Your task to perform on an android device: Go to Yahoo.com Image 0: 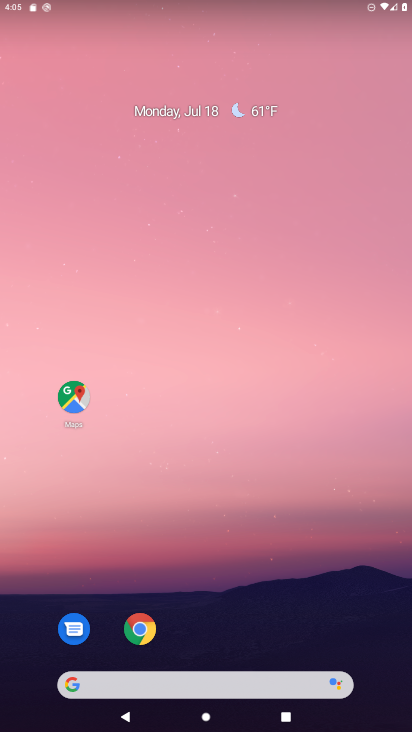
Step 0: click (136, 634)
Your task to perform on an android device: Go to Yahoo.com Image 1: 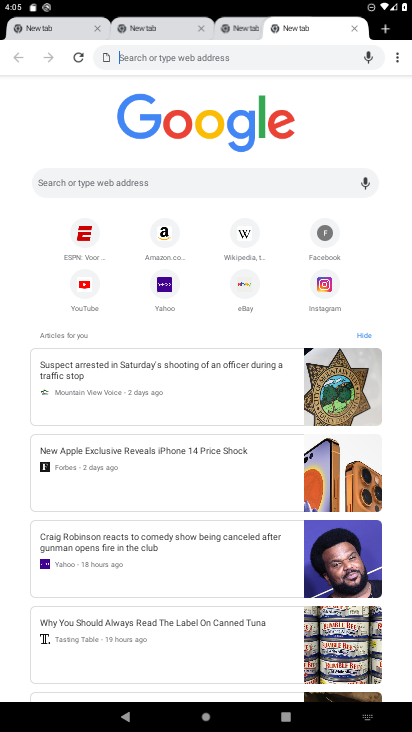
Step 1: click (171, 283)
Your task to perform on an android device: Go to Yahoo.com Image 2: 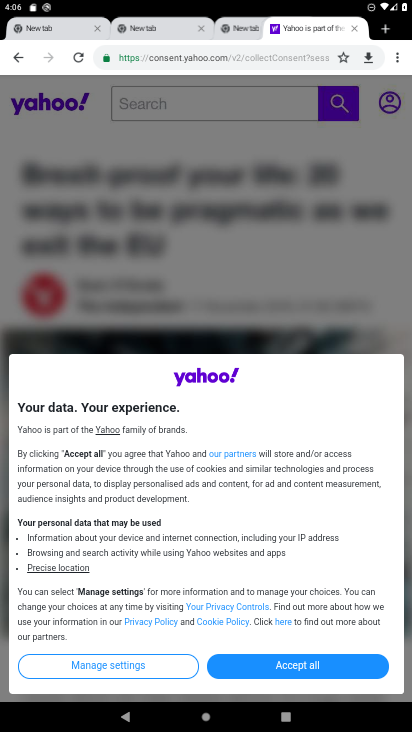
Step 2: task complete